Your task to perform on an android device: Open maps Image 0: 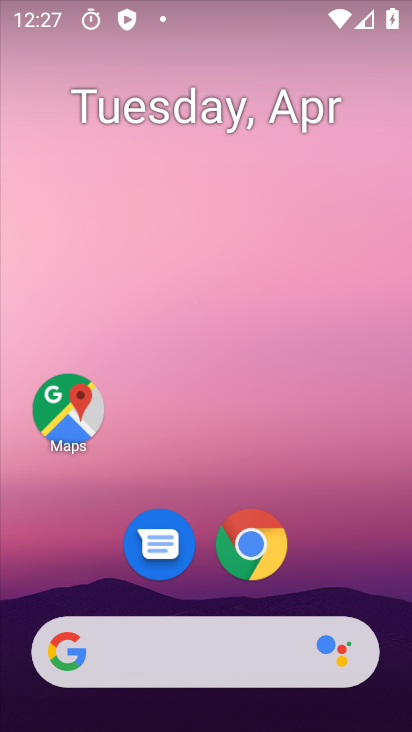
Step 0: click (71, 421)
Your task to perform on an android device: Open maps Image 1: 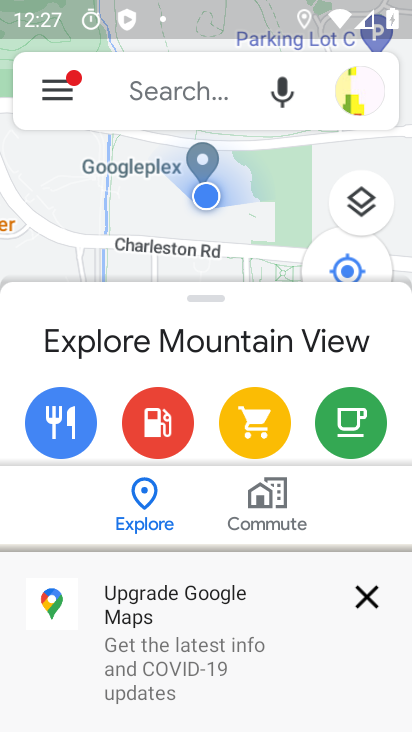
Step 1: task complete